Your task to perform on an android device: change notifications settings Image 0: 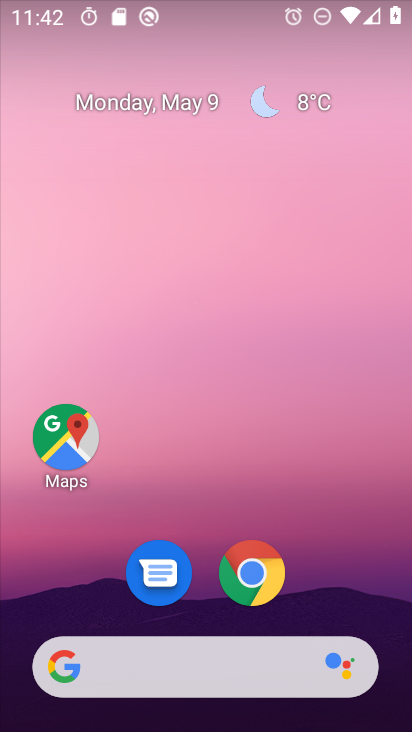
Step 0: drag from (365, 574) to (286, 126)
Your task to perform on an android device: change notifications settings Image 1: 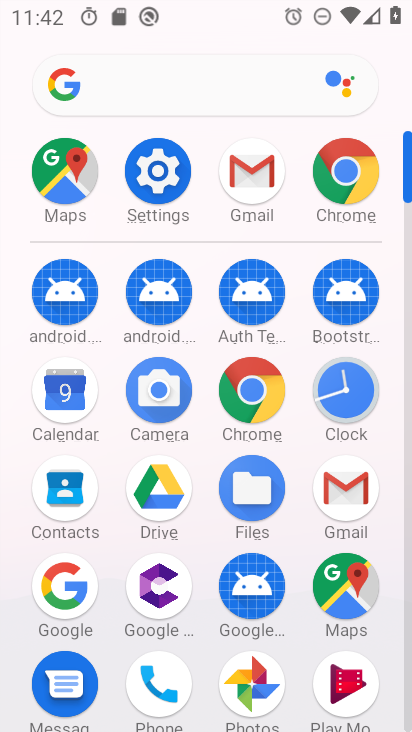
Step 1: click (159, 183)
Your task to perform on an android device: change notifications settings Image 2: 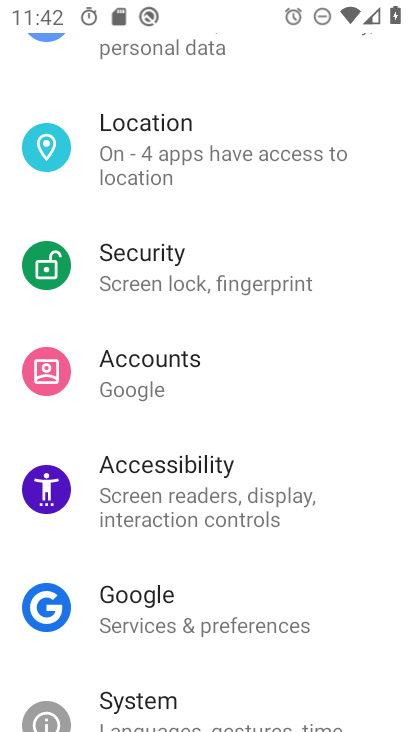
Step 2: drag from (228, 153) to (246, 641)
Your task to perform on an android device: change notifications settings Image 3: 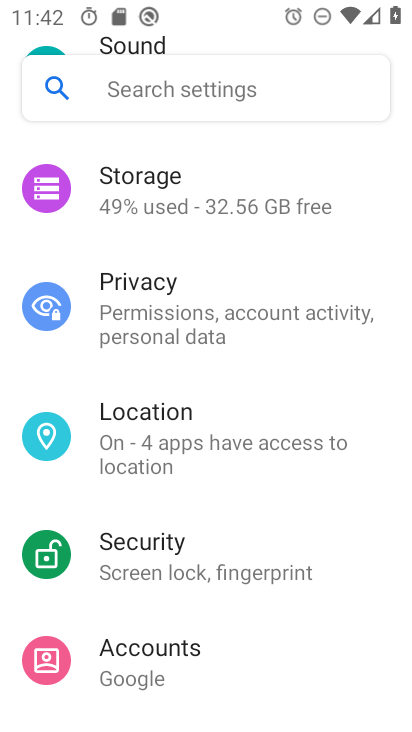
Step 3: drag from (223, 171) to (249, 581)
Your task to perform on an android device: change notifications settings Image 4: 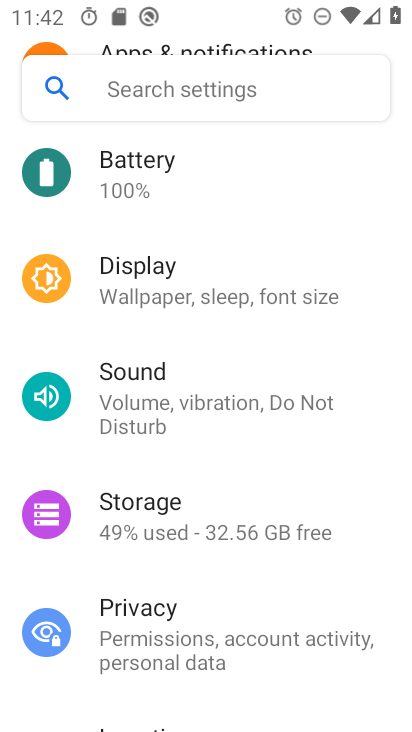
Step 4: drag from (193, 182) to (243, 646)
Your task to perform on an android device: change notifications settings Image 5: 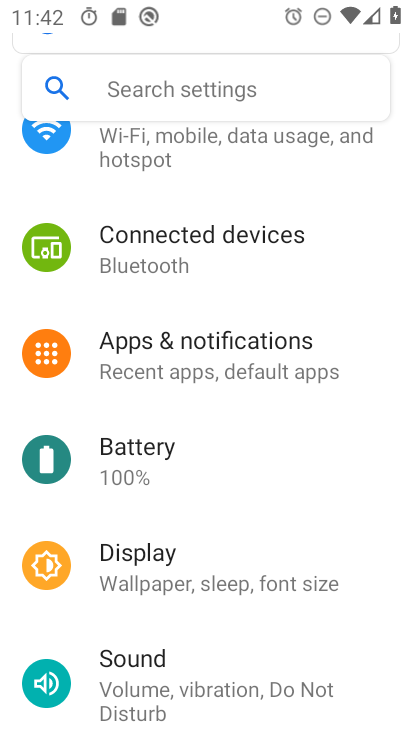
Step 5: drag from (232, 189) to (273, 516)
Your task to perform on an android device: change notifications settings Image 6: 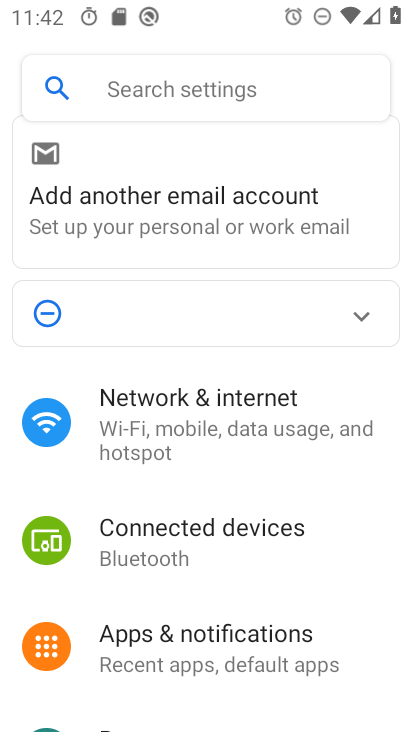
Step 6: click (245, 635)
Your task to perform on an android device: change notifications settings Image 7: 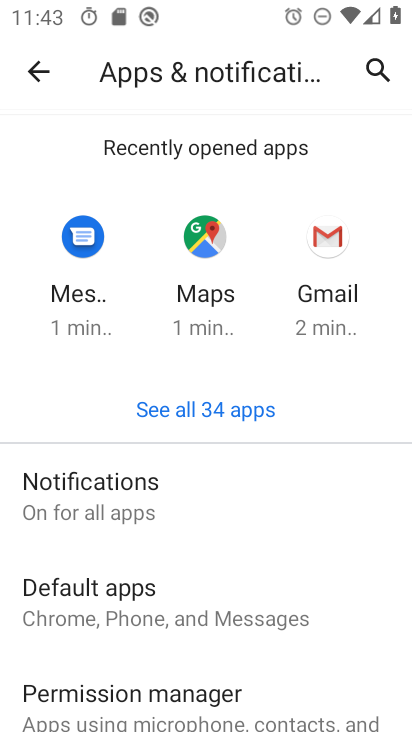
Step 7: click (144, 503)
Your task to perform on an android device: change notifications settings Image 8: 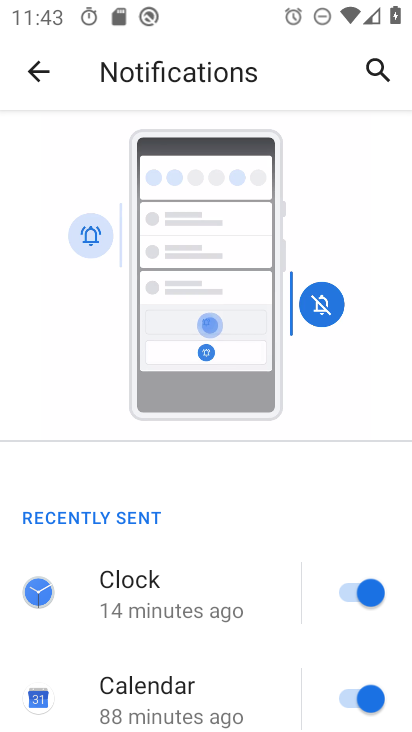
Step 8: task complete